Your task to perform on an android device: open app "WhatsApp Messenger" Image 0: 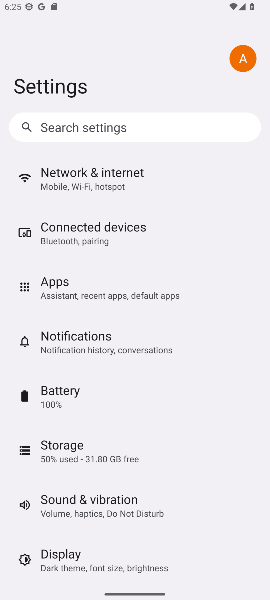
Step 0: press home button
Your task to perform on an android device: open app "WhatsApp Messenger" Image 1: 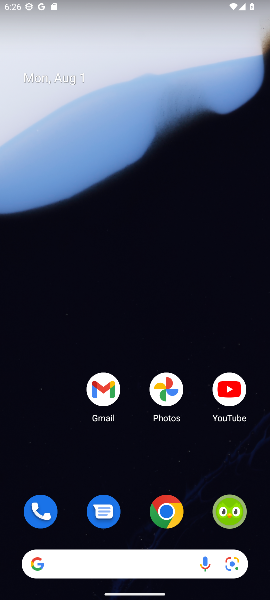
Step 1: drag from (192, 486) to (100, 11)
Your task to perform on an android device: open app "WhatsApp Messenger" Image 2: 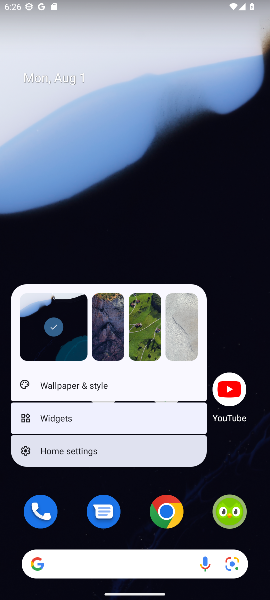
Step 2: click (219, 249)
Your task to perform on an android device: open app "WhatsApp Messenger" Image 3: 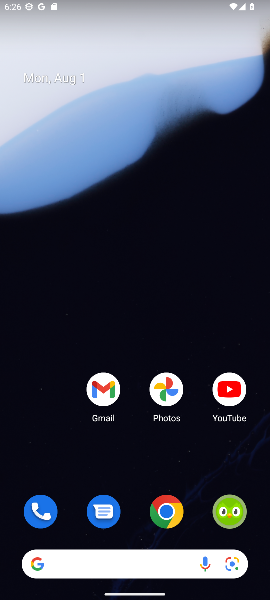
Step 3: drag from (225, 431) to (195, 133)
Your task to perform on an android device: open app "WhatsApp Messenger" Image 4: 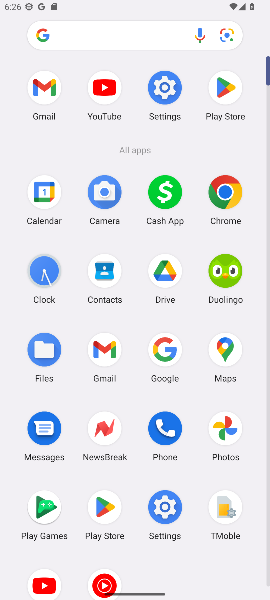
Step 4: click (105, 501)
Your task to perform on an android device: open app "WhatsApp Messenger" Image 5: 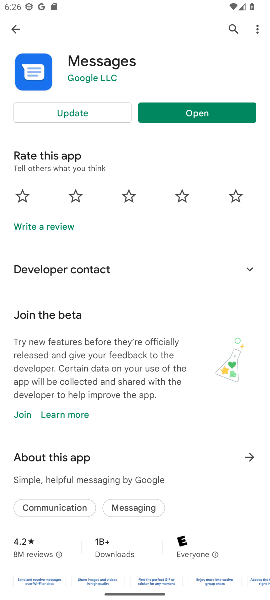
Step 5: click (233, 25)
Your task to perform on an android device: open app "WhatsApp Messenger" Image 6: 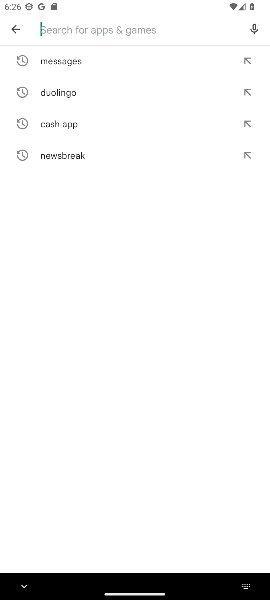
Step 6: type "whatsapp messenger"
Your task to perform on an android device: open app "WhatsApp Messenger" Image 7: 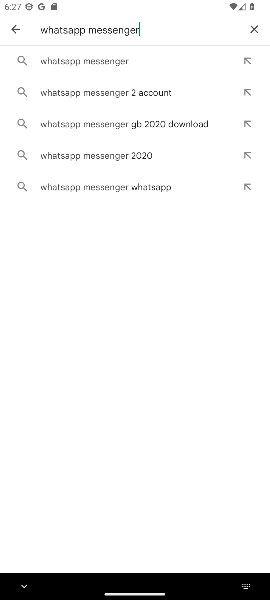
Step 7: click (114, 54)
Your task to perform on an android device: open app "WhatsApp Messenger" Image 8: 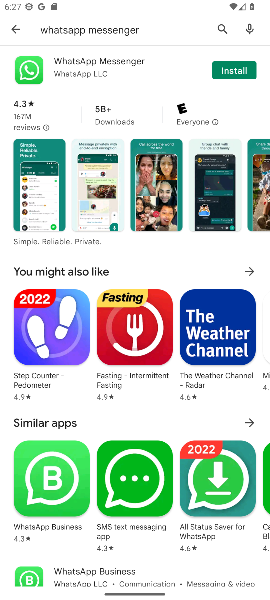
Step 8: task complete